Your task to perform on an android device: Go to Reddit.com Image 0: 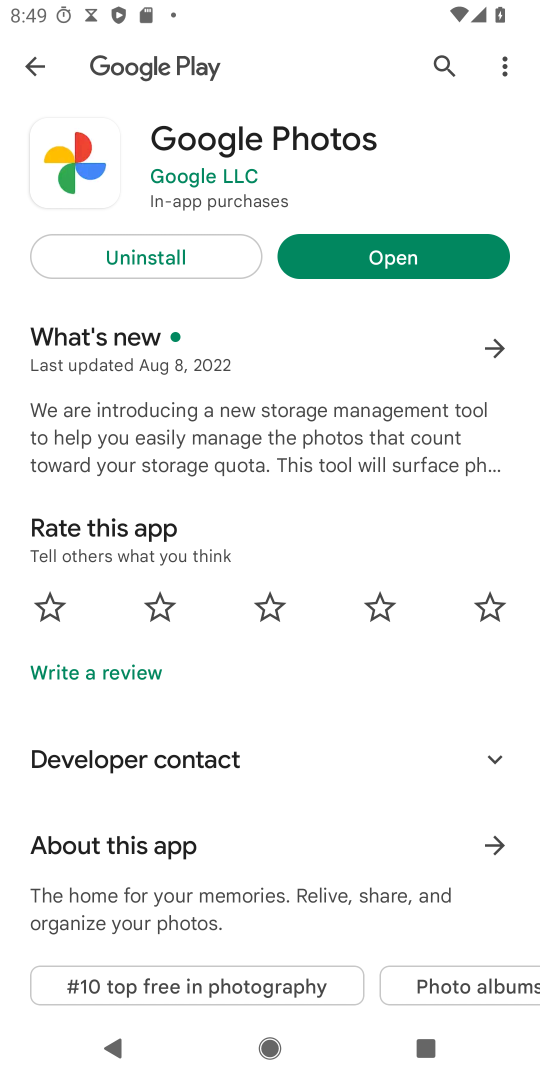
Step 0: press home button
Your task to perform on an android device: Go to Reddit.com Image 1: 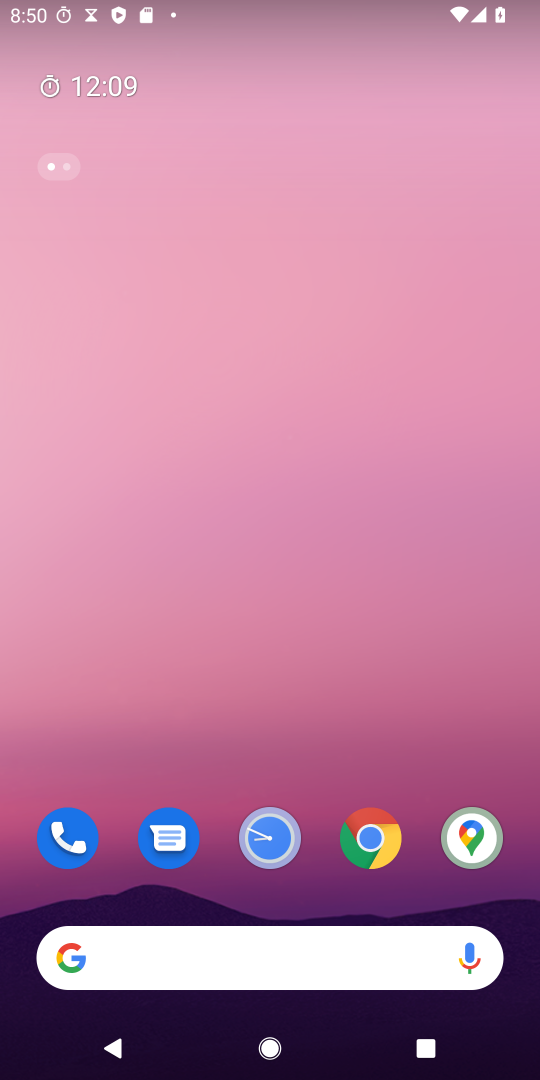
Step 1: click (375, 870)
Your task to perform on an android device: Go to Reddit.com Image 2: 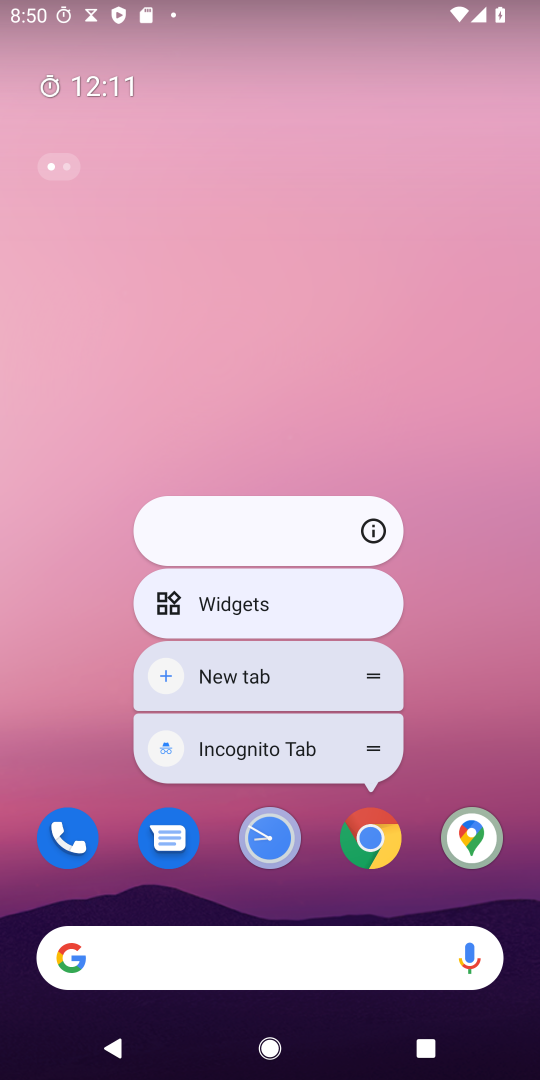
Step 2: click (375, 870)
Your task to perform on an android device: Go to Reddit.com Image 3: 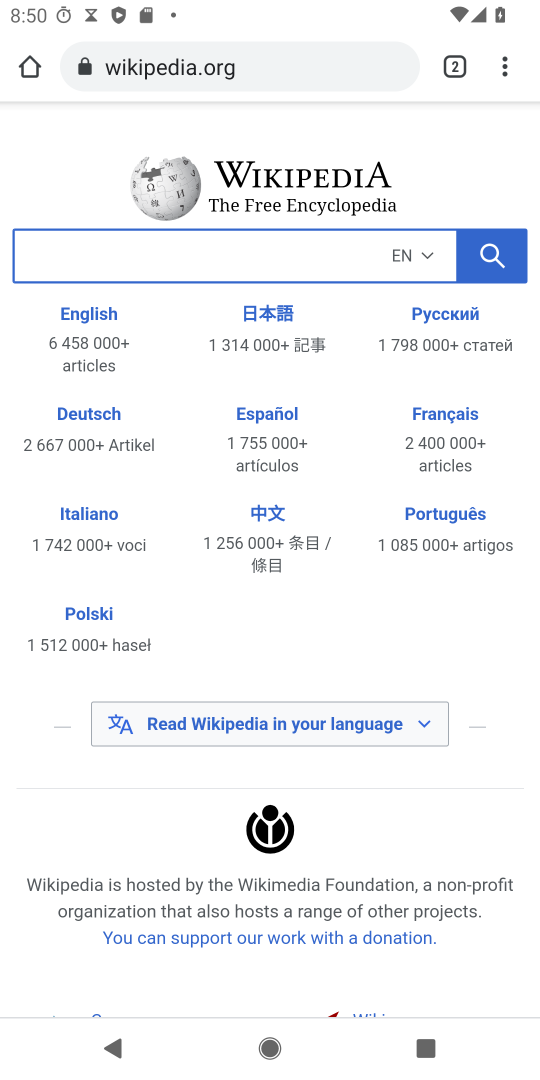
Step 3: click (224, 75)
Your task to perform on an android device: Go to Reddit.com Image 4: 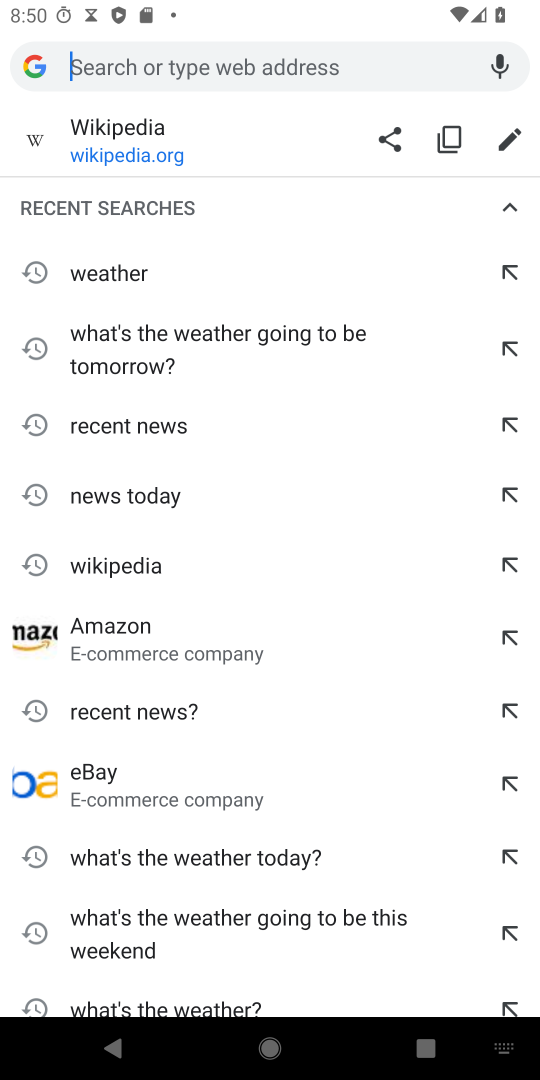
Step 4: type " Reddit.com"
Your task to perform on an android device: Go to Reddit.com Image 5: 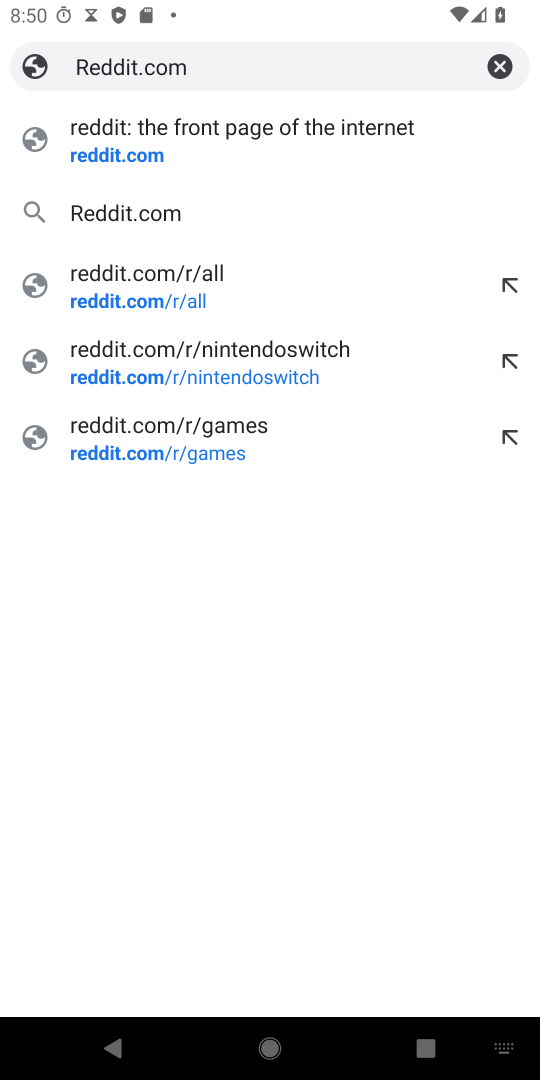
Step 5: click (98, 162)
Your task to perform on an android device: Go to Reddit.com Image 6: 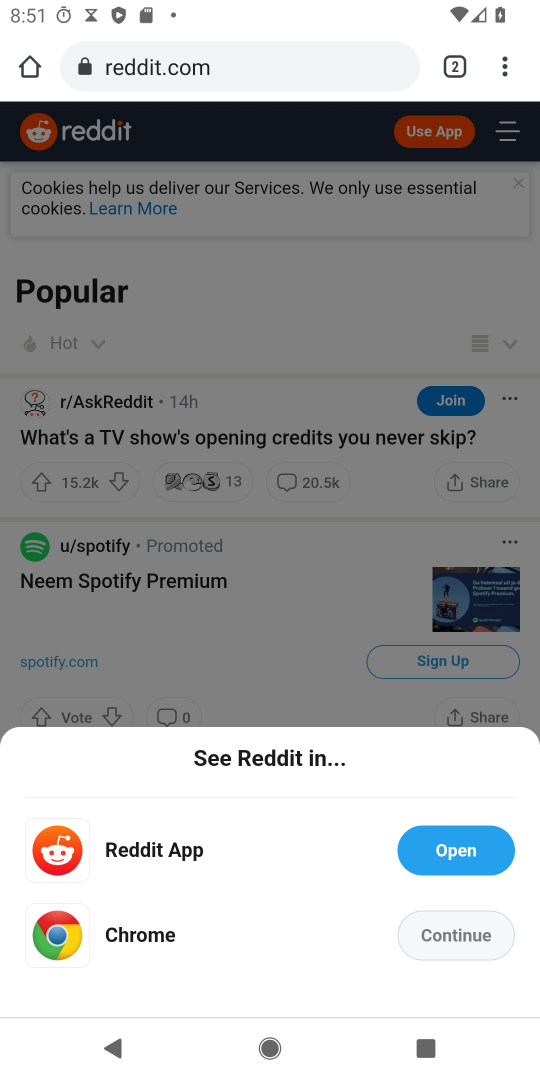
Step 6: task complete